Your task to perform on an android device: Open internet settings Image 0: 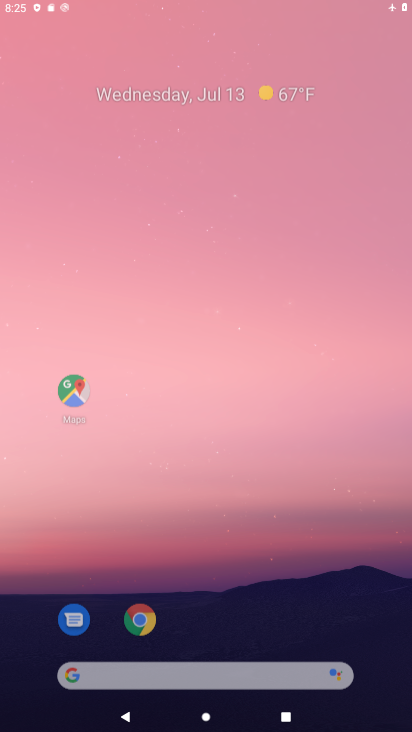
Step 0: drag from (222, 61) to (268, 13)
Your task to perform on an android device: Open internet settings Image 1: 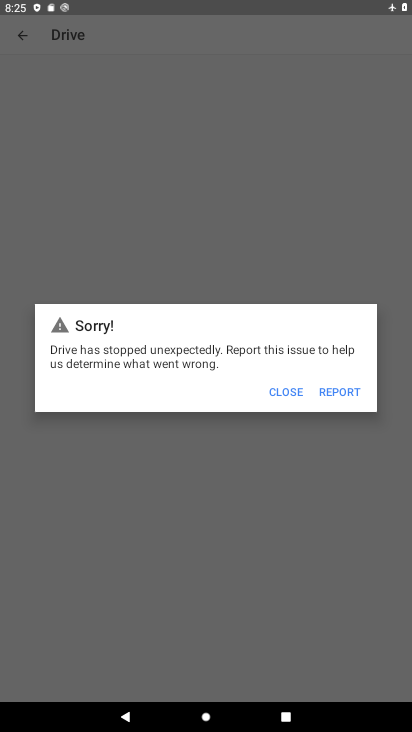
Step 1: click (285, 387)
Your task to perform on an android device: Open internet settings Image 2: 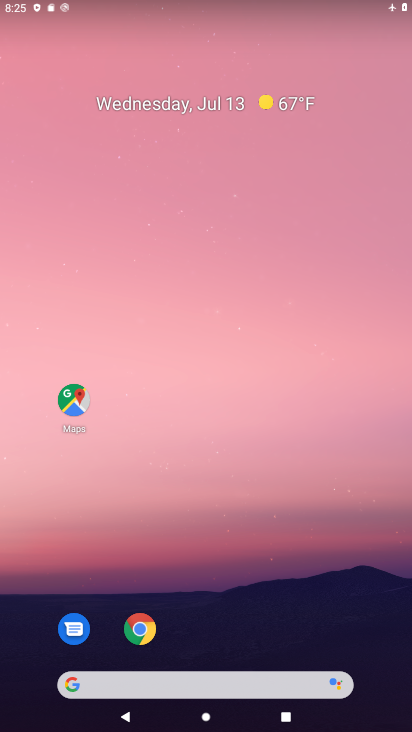
Step 2: drag from (215, 658) to (195, 58)
Your task to perform on an android device: Open internet settings Image 3: 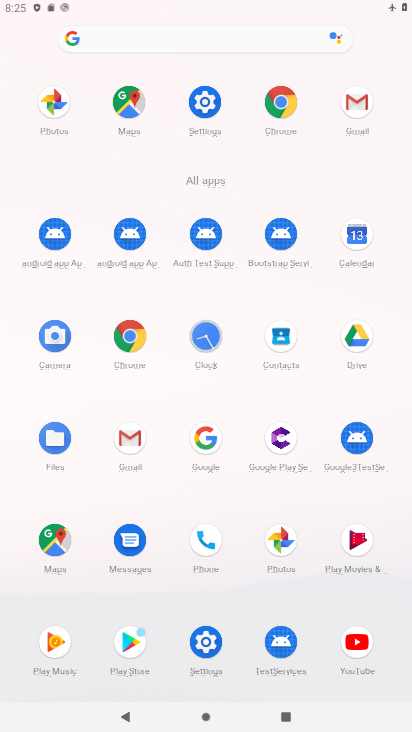
Step 3: click (203, 653)
Your task to perform on an android device: Open internet settings Image 4: 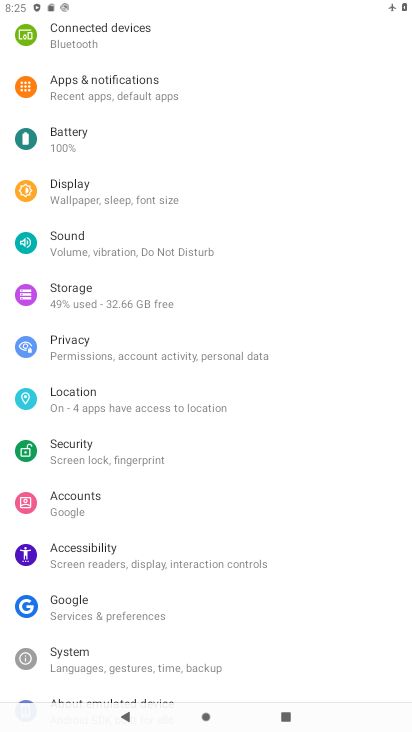
Step 4: drag from (132, 189) to (142, 390)
Your task to perform on an android device: Open internet settings Image 5: 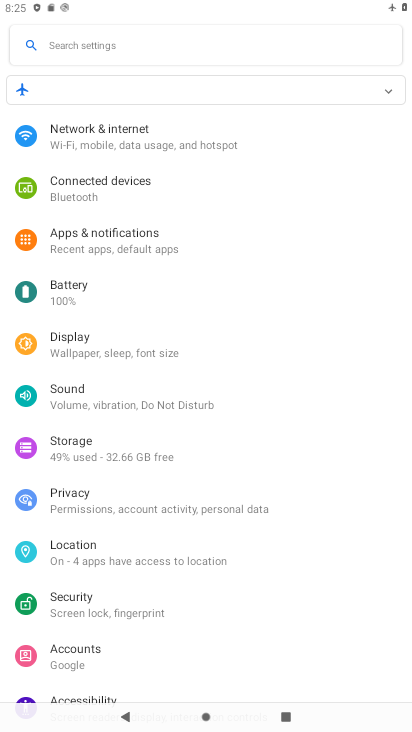
Step 5: click (157, 129)
Your task to perform on an android device: Open internet settings Image 6: 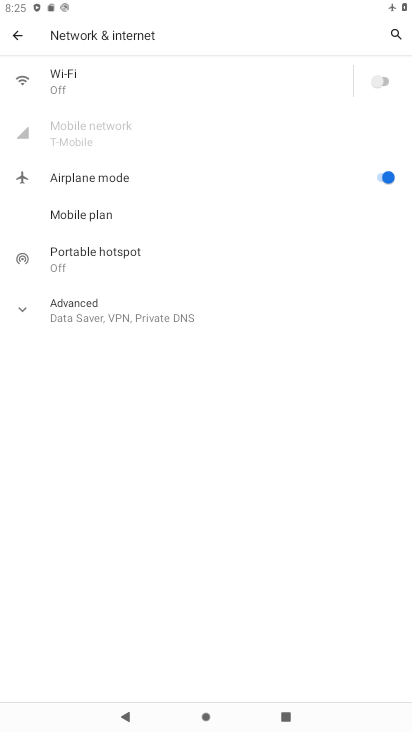
Step 6: task complete